Your task to perform on an android device: turn vacation reply on in the gmail app Image 0: 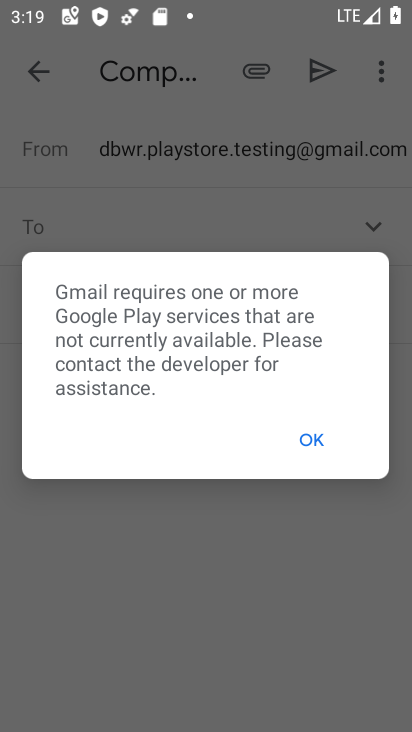
Step 0: press home button
Your task to perform on an android device: turn vacation reply on in the gmail app Image 1: 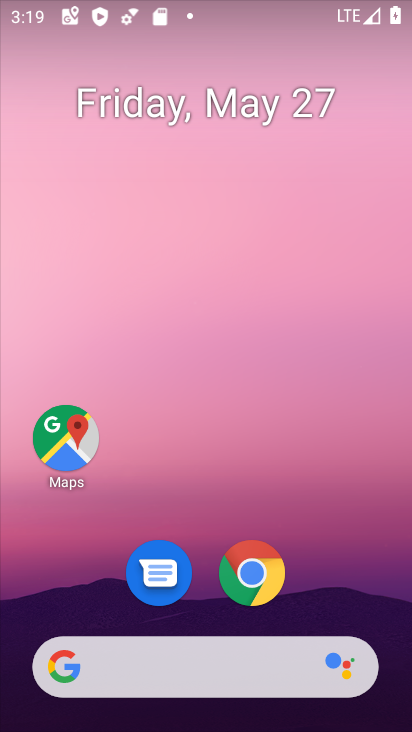
Step 1: drag from (334, 501) to (343, 0)
Your task to perform on an android device: turn vacation reply on in the gmail app Image 2: 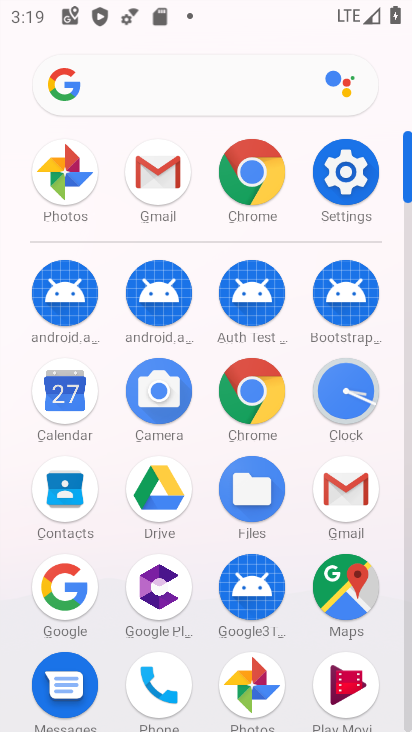
Step 2: click (163, 174)
Your task to perform on an android device: turn vacation reply on in the gmail app Image 3: 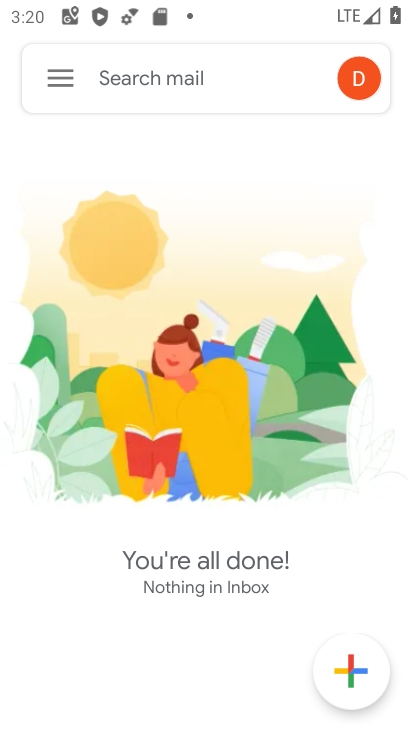
Step 3: click (65, 75)
Your task to perform on an android device: turn vacation reply on in the gmail app Image 4: 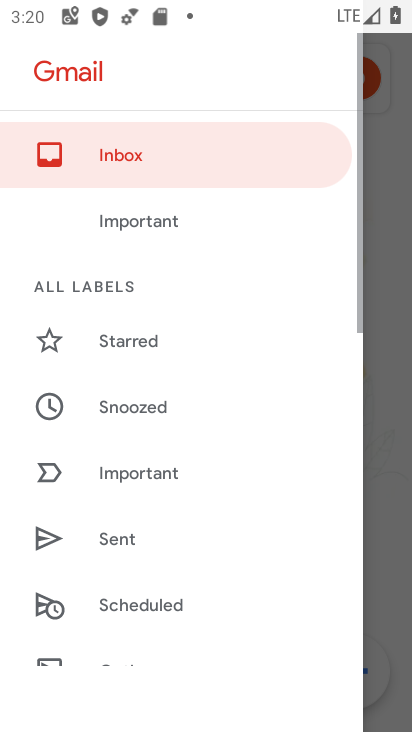
Step 4: drag from (201, 473) to (294, 72)
Your task to perform on an android device: turn vacation reply on in the gmail app Image 5: 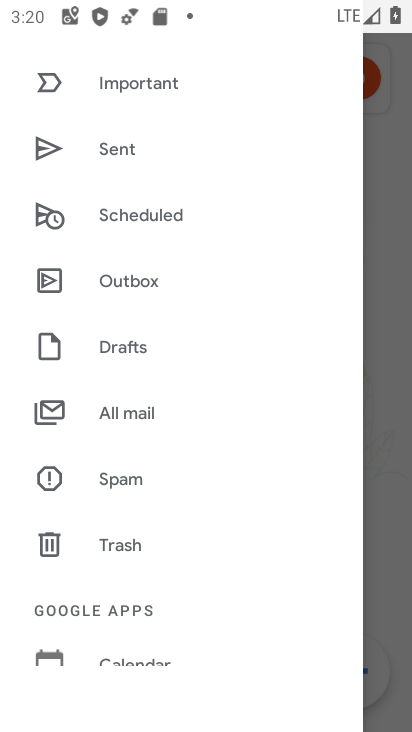
Step 5: drag from (199, 474) to (199, 96)
Your task to perform on an android device: turn vacation reply on in the gmail app Image 6: 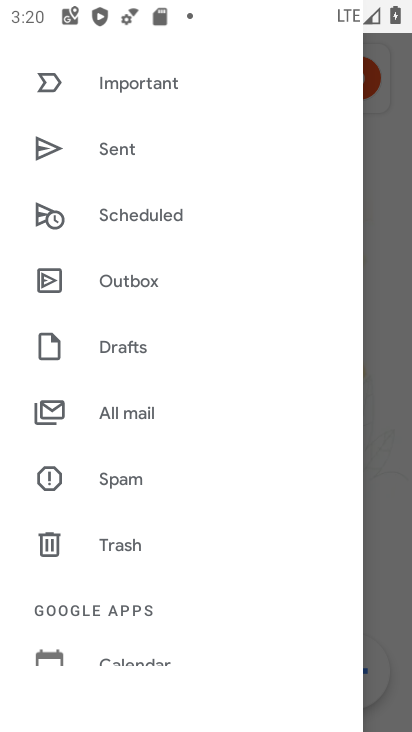
Step 6: drag from (191, 271) to (209, 18)
Your task to perform on an android device: turn vacation reply on in the gmail app Image 7: 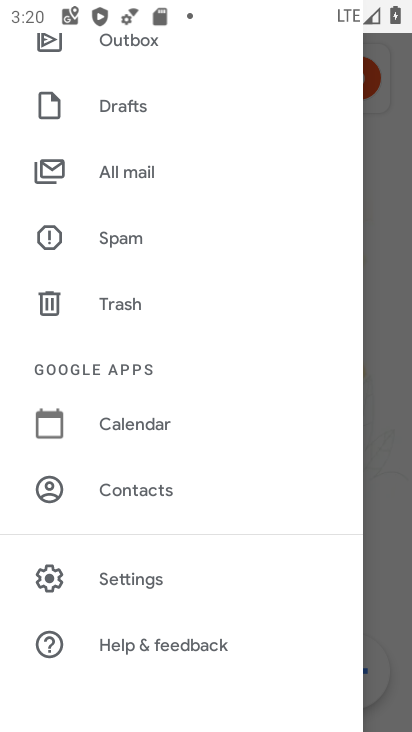
Step 7: click (151, 582)
Your task to perform on an android device: turn vacation reply on in the gmail app Image 8: 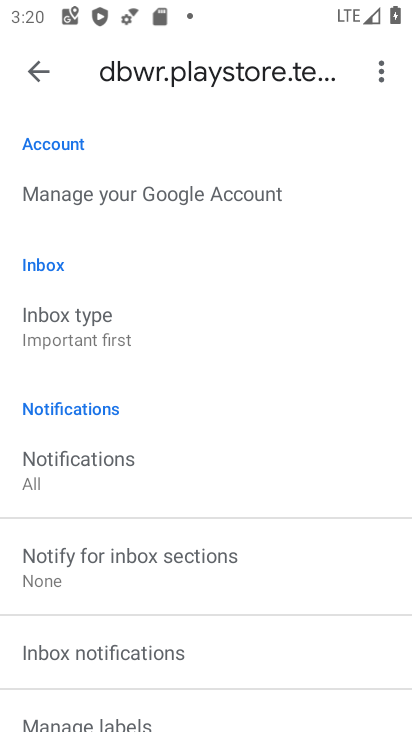
Step 8: drag from (197, 601) to (208, 0)
Your task to perform on an android device: turn vacation reply on in the gmail app Image 9: 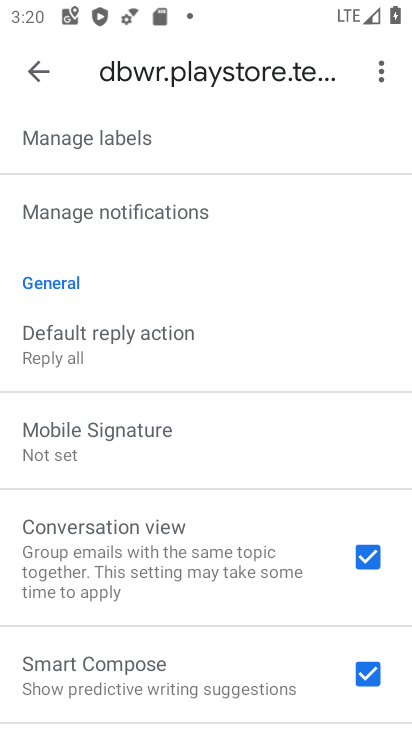
Step 9: drag from (198, 524) to (224, 139)
Your task to perform on an android device: turn vacation reply on in the gmail app Image 10: 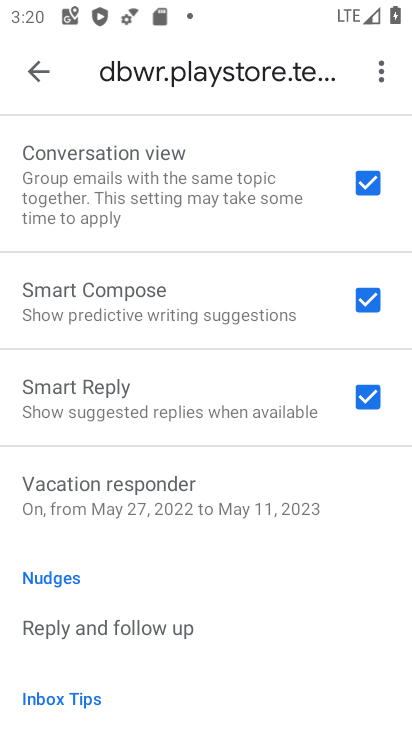
Step 10: click (204, 489)
Your task to perform on an android device: turn vacation reply on in the gmail app Image 11: 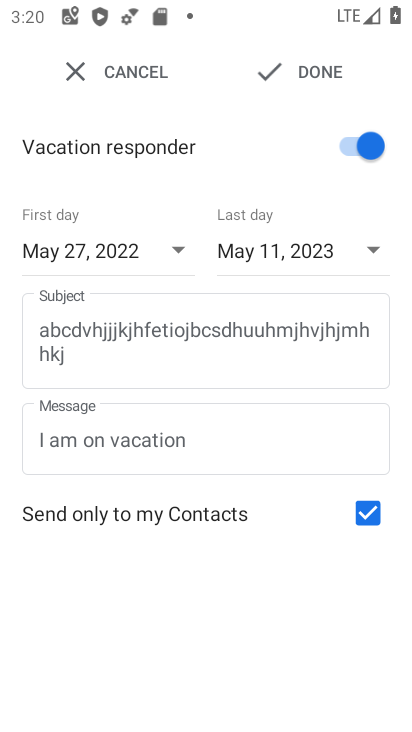
Step 11: task complete